Your task to perform on an android device: add a contact Image 0: 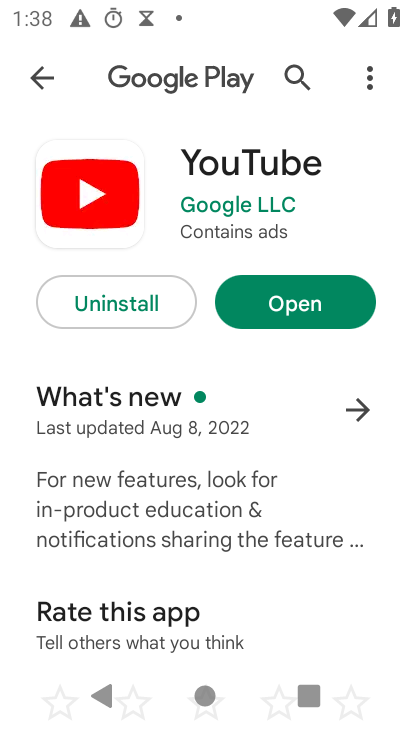
Step 0: press home button
Your task to perform on an android device: add a contact Image 1: 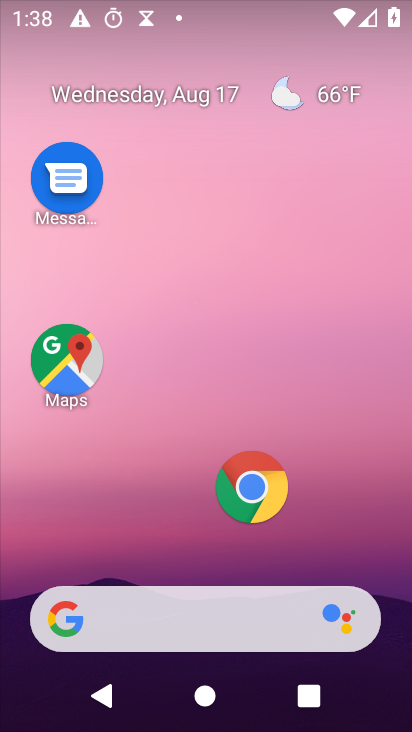
Step 1: drag from (166, 434) to (220, 13)
Your task to perform on an android device: add a contact Image 2: 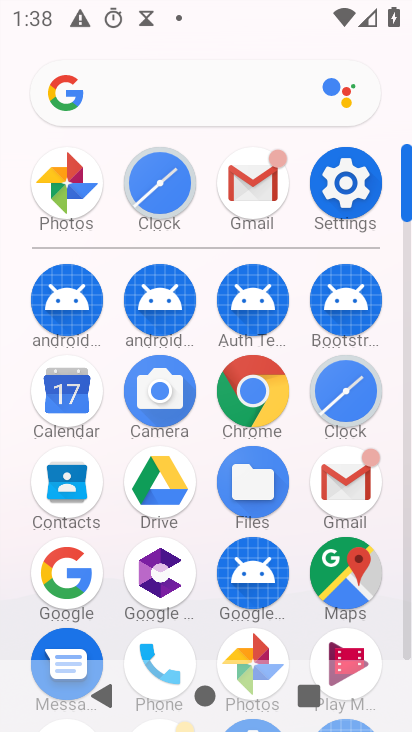
Step 2: click (51, 504)
Your task to perform on an android device: add a contact Image 3: 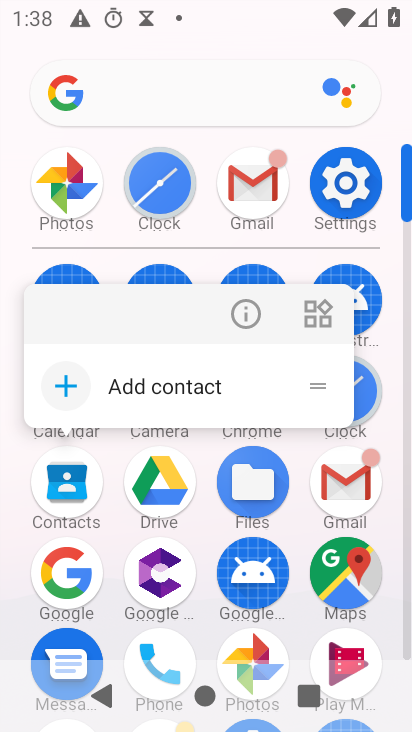
Step 3: click (100, 401)
Your task to perform on an android device: add a contact Image 4: 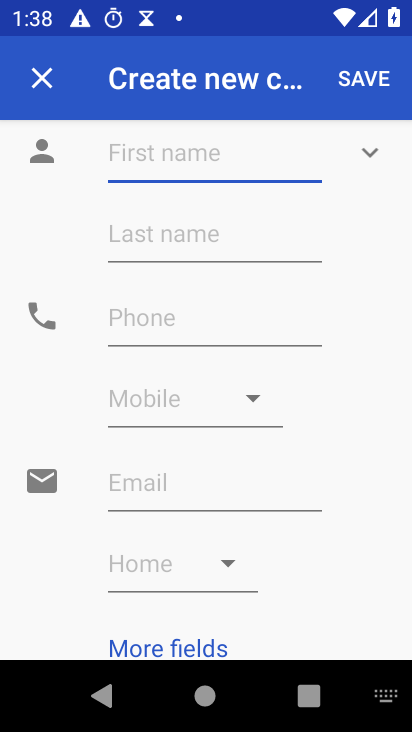
Step 4: type "kkkkkk"
Your task to perform on an android device: add a contact Image 5: 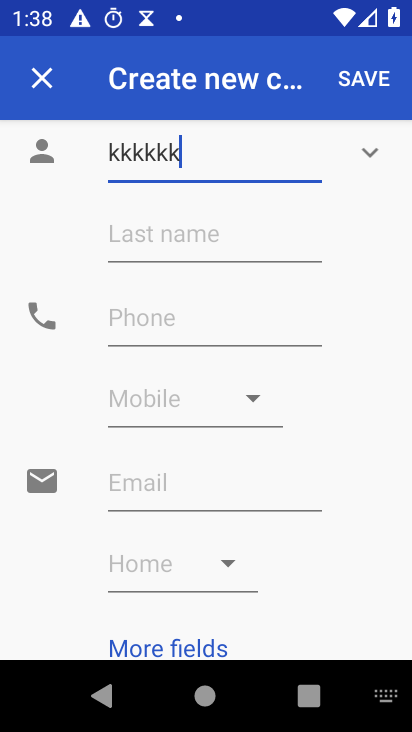
Step 5: press enter
Your task to perform on an android device: add a contact Image 6: 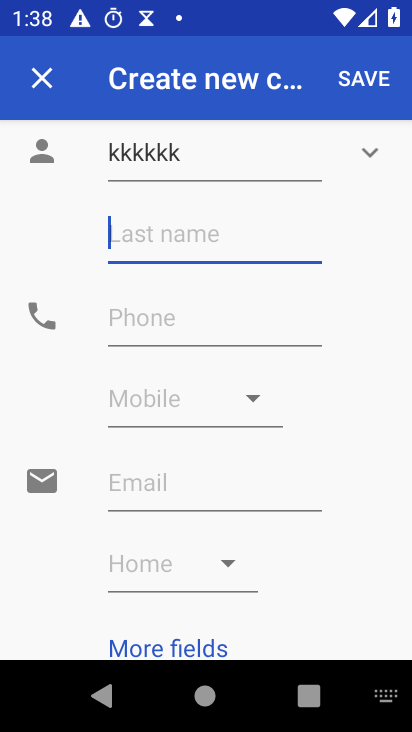
Step 6: click (126, 325)
Your task to perform on an android device: add a contact Image 7: 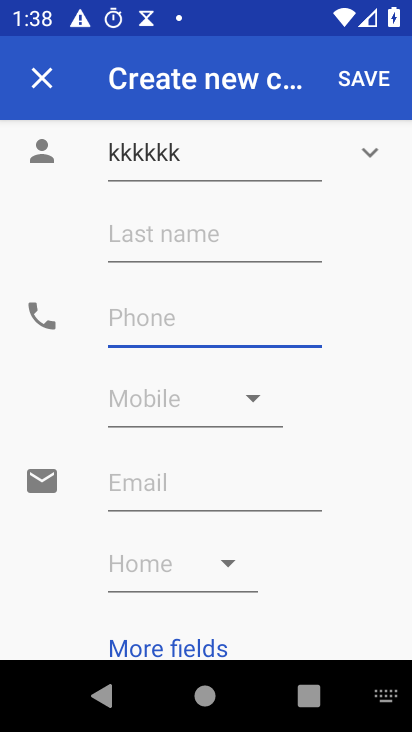
Step 7: type "9999999"
Your task to perform on an android device: add a contact Image 8: 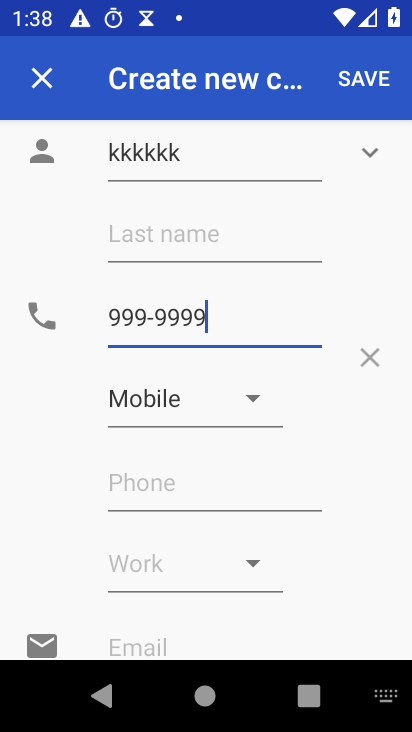
Step 8: press enter
Your task to perform on an android device: add a contact Image 9: 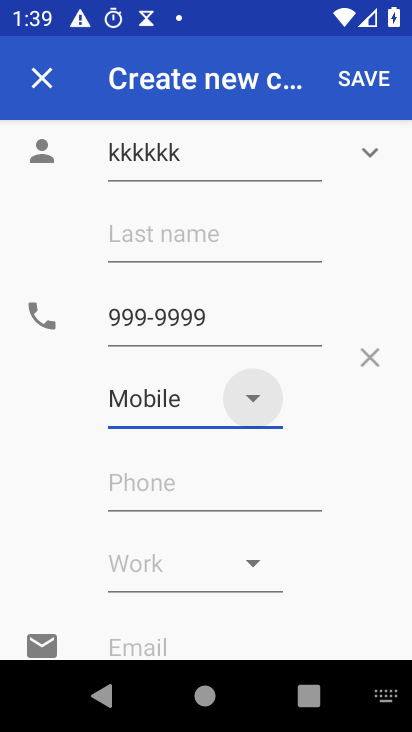
Step 9: click (349, 74)
Your task to perform on an android device: add a contact Image 10: 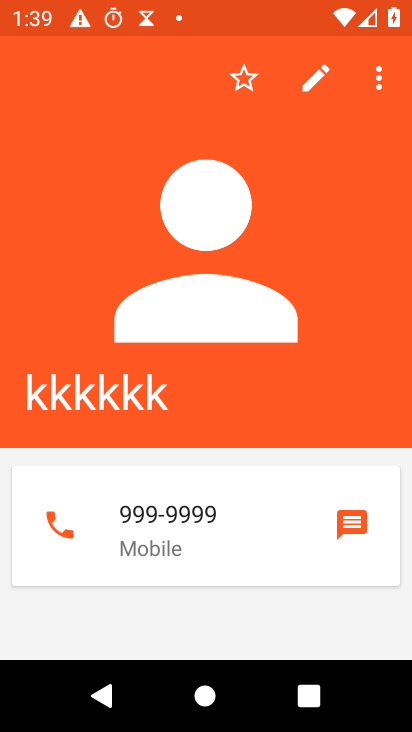
Step 10: task complete